Your task to perform on an android device: Check the news Image 0: 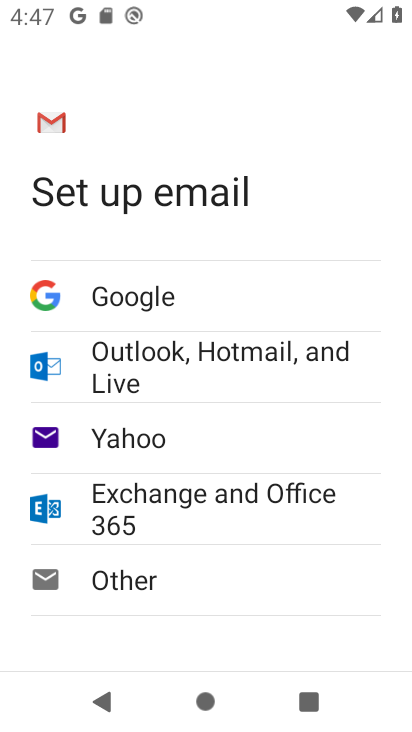
Step 0: press home button
Your task to perform on an android device: Check the news Image 1: 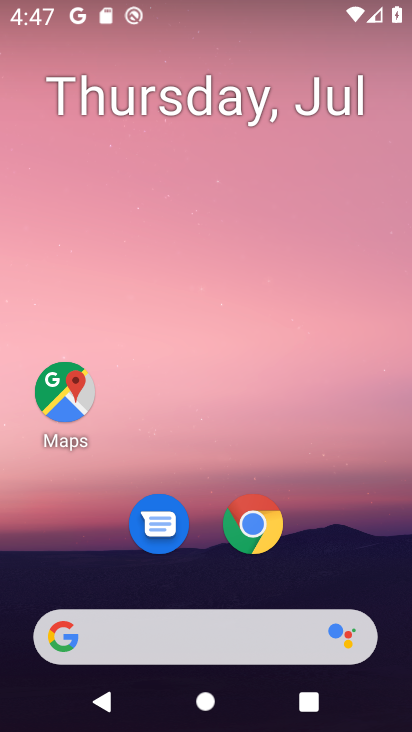
Step 1: drag from (6, 276) to (408, 268)
Your task to perform on an android device: Check the news Image 2: 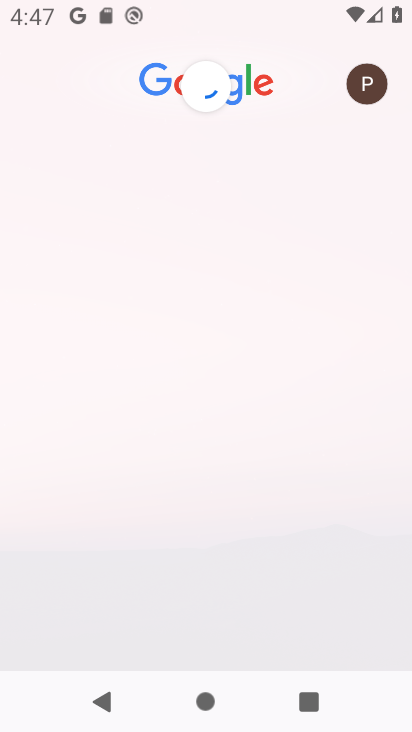
Step 2: click (231, 521)
Your task to perform on an android device: Check the news Image 3: 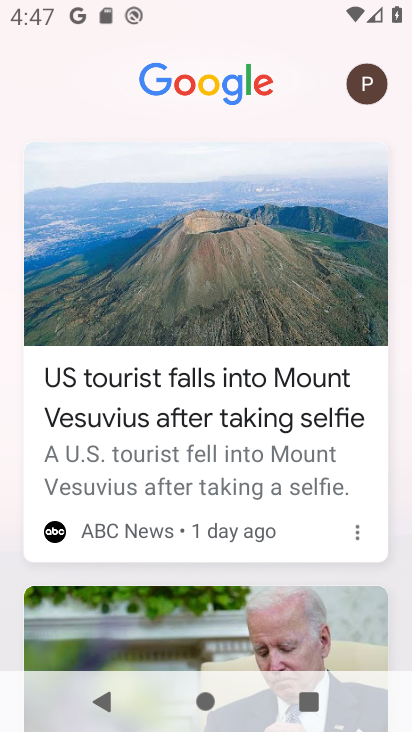
Step 3: task complete